Your task to perform on an android device: Toggle the flashlight Image 0: 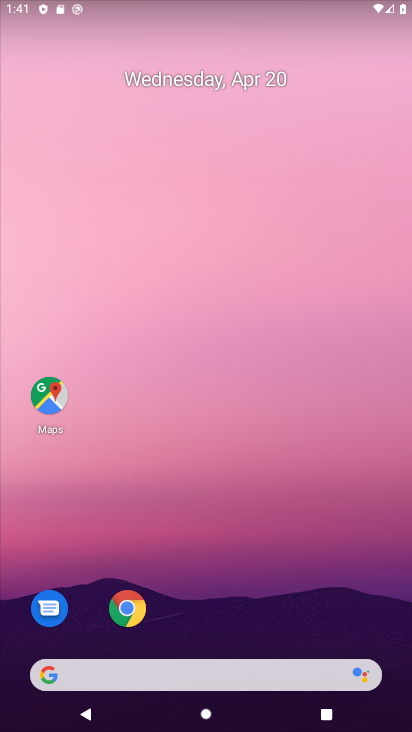
Step 0: drag from (143, 9) to (183, 460)
Your task to perform on an android device: Toggle the flashlight Image 1: 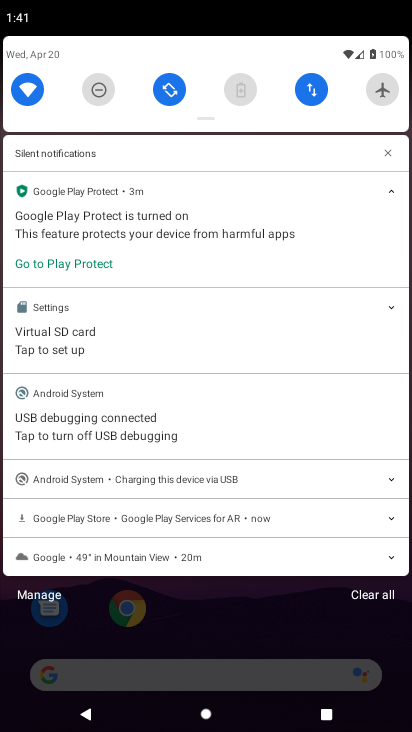
Step 1: task complete